Your task to perform on an android device: Open location settings Image 0: 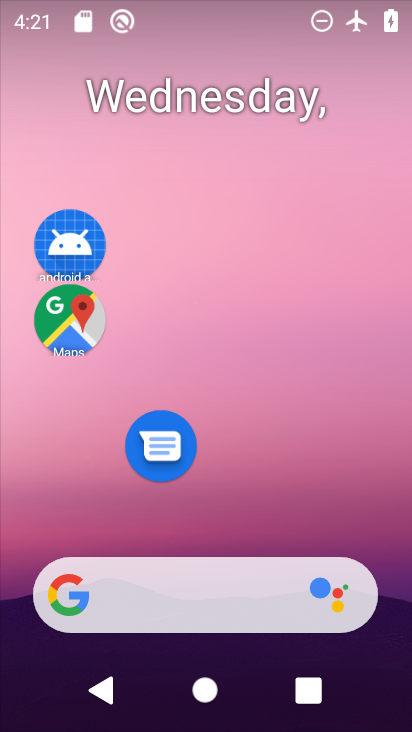
Step 0: drag from (317, 520) to (311, 202)
Your task to perform on an android device: Open location settings Image 1: 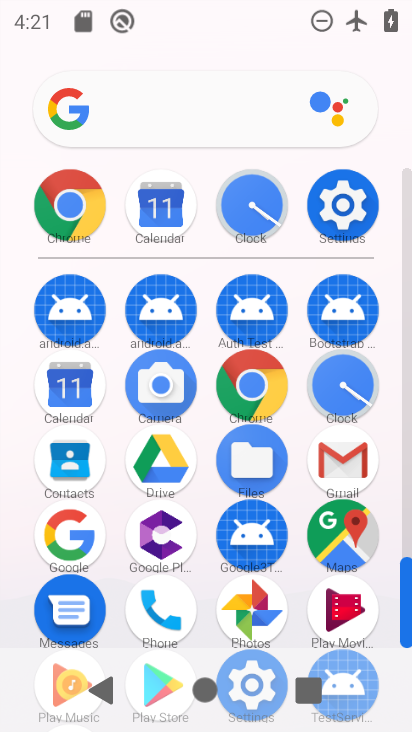
Step 1: click (326, 216)
Your task to perform on an android device: Open location settings Image 2: 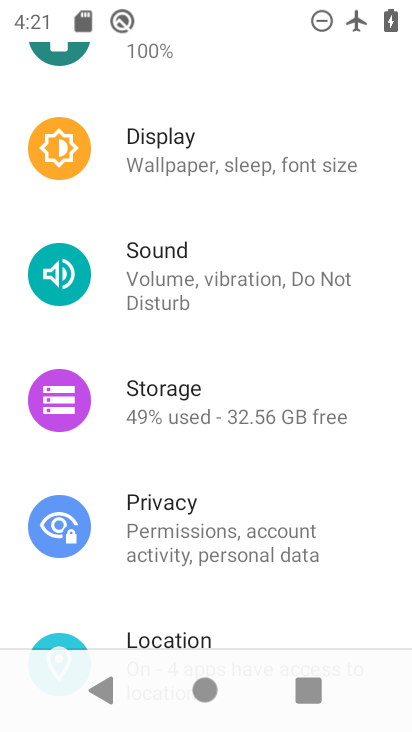
Step 2: drag from (169, 578) to (156, 408)
Your task to perform on an android device: Open location settings Image 3: 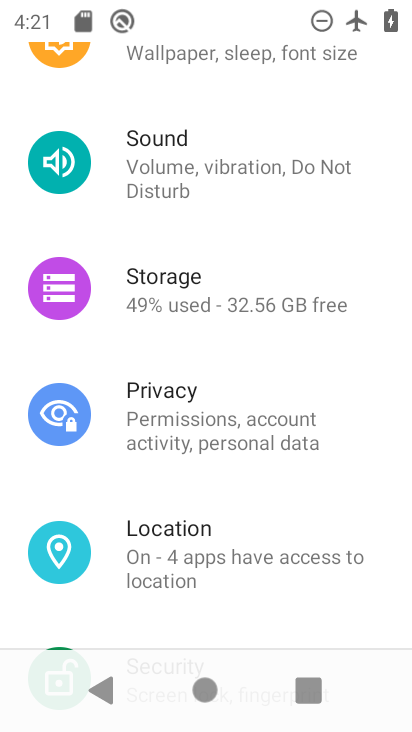
Step 3: click (149, 544)
Your task to perform on an android device: Open location settings Image 4: 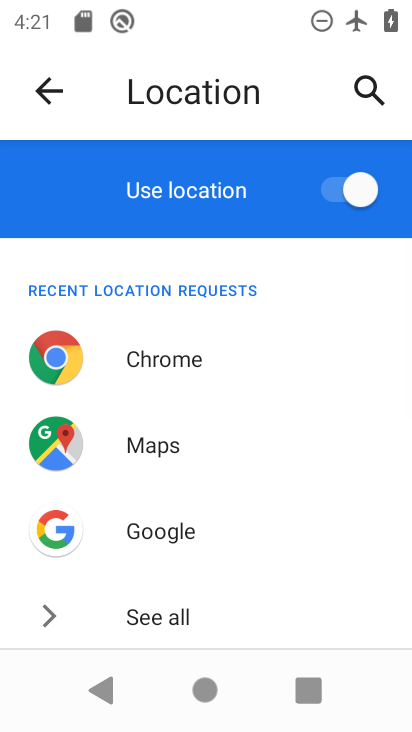
Step 4: drag from (220, 579) to (192, 355)
Your task to perform on an android device: Open location settings Image 5: 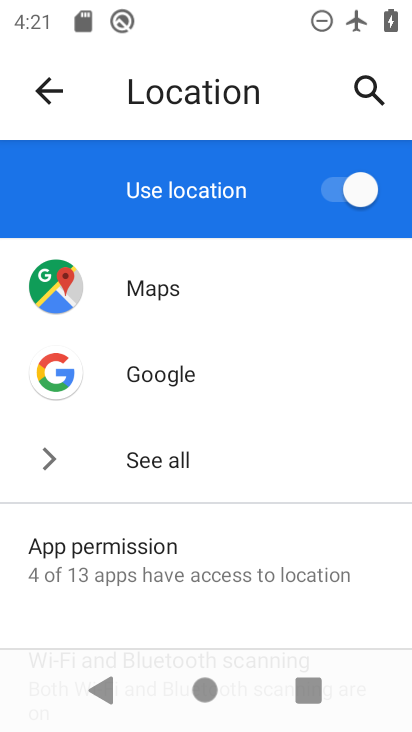
Step 5: drag from (186, 520) to (191, 443)
Your task to perform on an android device: Open location settings Image 6: 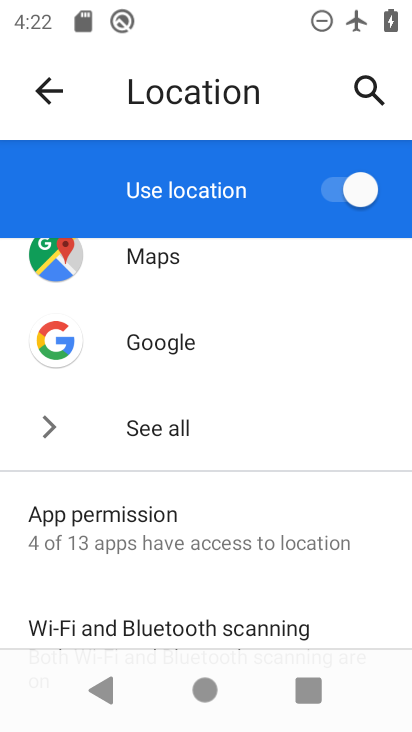
Step 6: drag from (257, 592) to (265, 358)
Your task to perform on an android device: Open location settings Image 7: 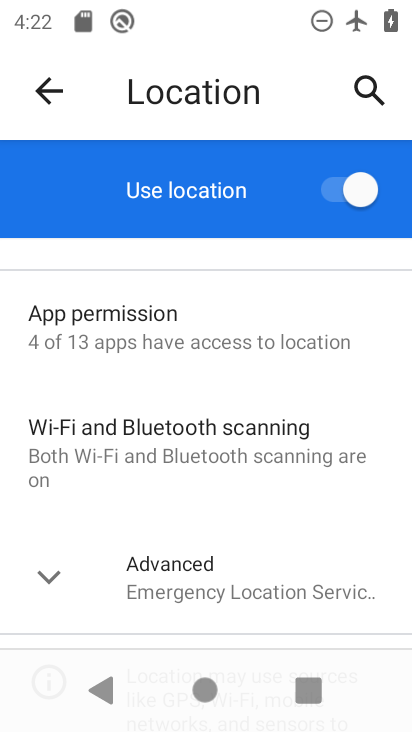
Step 7: click (241, 607)
Your task to perform on an android device: Open location settings Image 8: 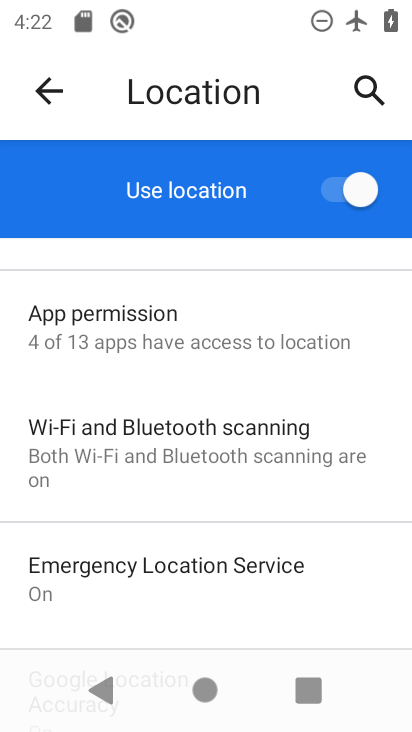
Step 8: task complete